Your task to perform on an android device: turn on data saver in the chrome app Image 0: 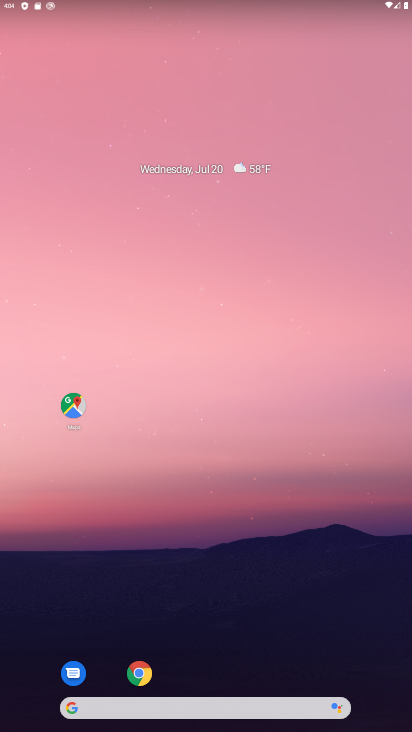
Step 0: click (138, 673)
Your task to perform on an android device: turn on data saver in the chrome app Image 1: 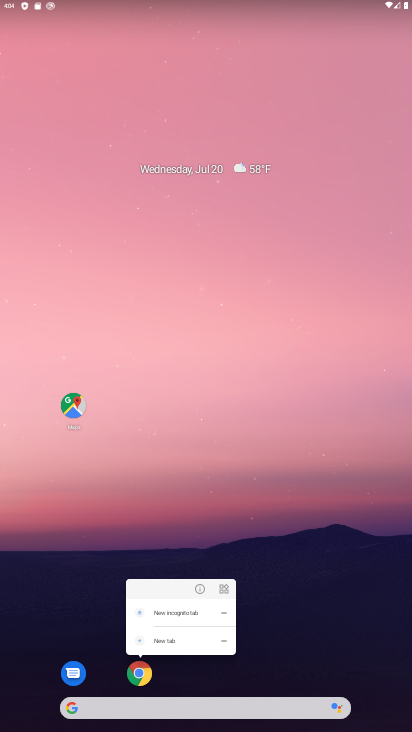
Step 1: click (138, 670)
Your task to perform on an android device: turn on data saver in the chrome app Image 2: 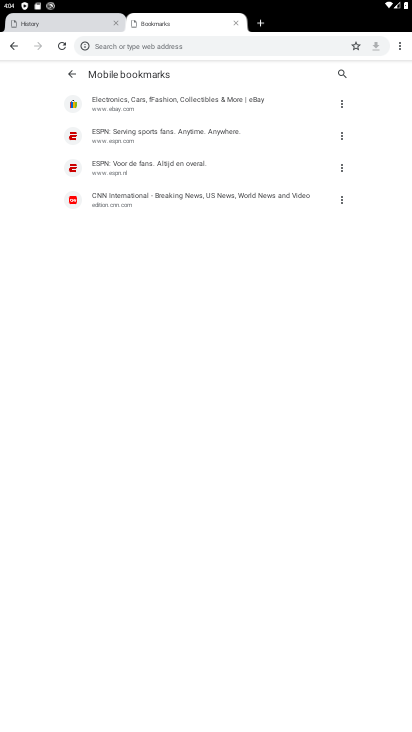
Step 2: click (400, 46)
Your task to perform on an android device: turn on data saver in the chrome app Image 3: 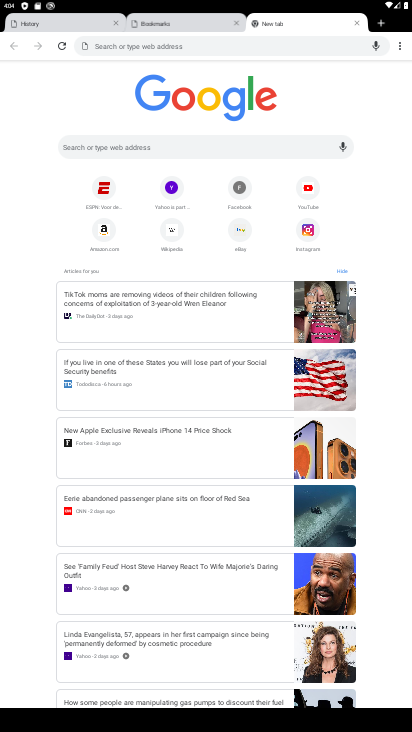
Step 3: click (399, 45)
Your task to perform on an android device: turn on data saver in the chrome app Image 4: 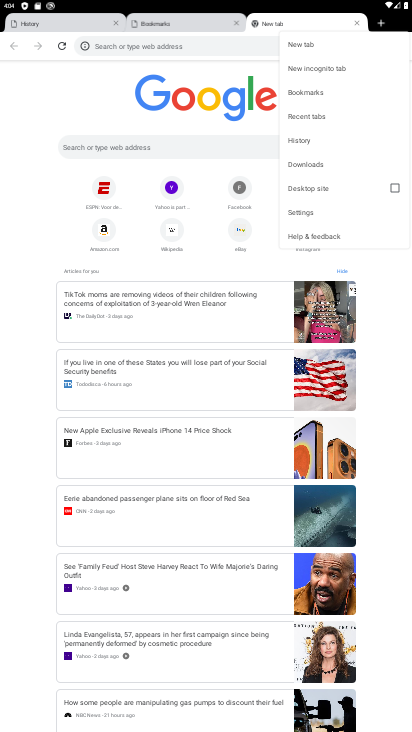
Step 4: click (297, 214)
Your task to perform on an android device: turn on data saver in the chrome app Image 5: 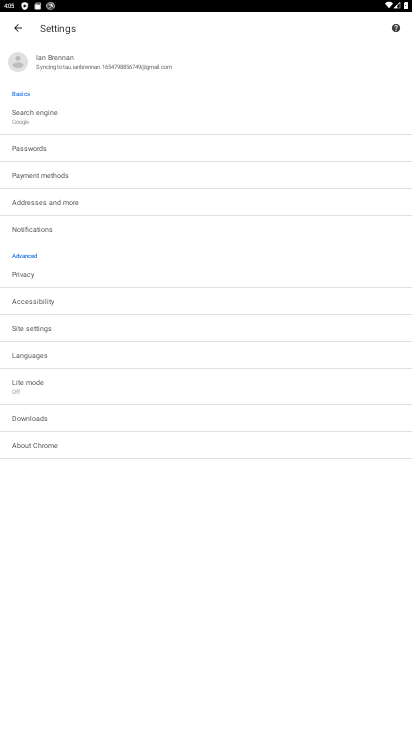
Step 5: click (26, 250)
Your task to perform on an android device: turn on data saver in the chrome app Image 6: 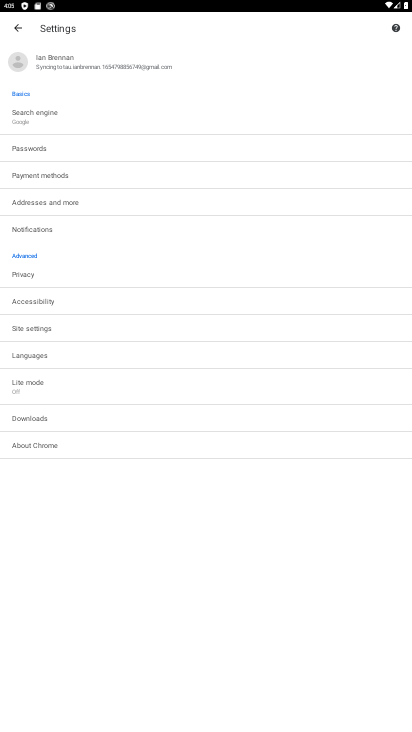
Step 6: click (26, 254)
Your task to perform on an android device: turn on data saver in the chrome app Image 7: 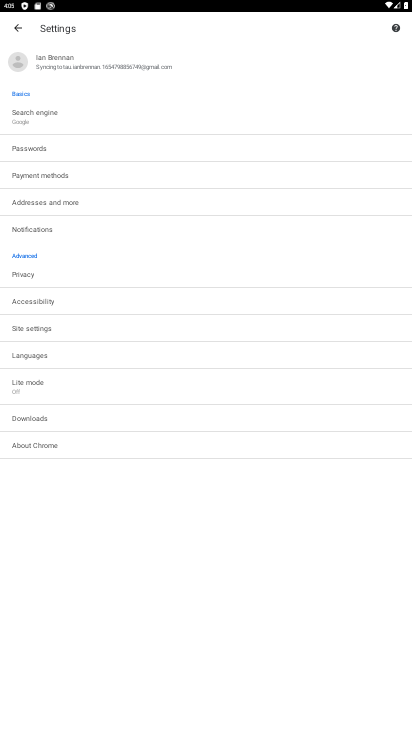
Step 7: task complete